Your task to perform on an android device: What's the weather today? Image 0: 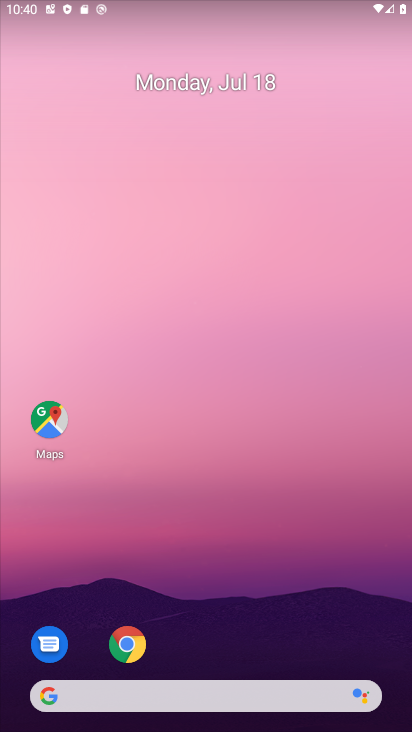
Step 0: drag from (210, 662) to (201, 136)
Your task to perform on an android device: What's the weather today? Image 1: 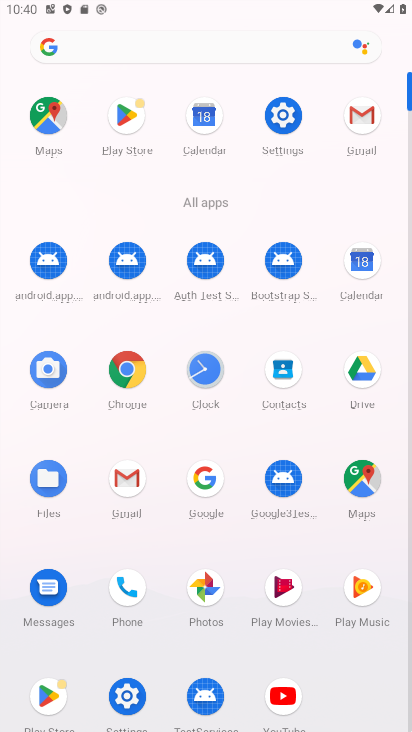
Step 1: click (204, 480)
Your task to perform on an android device: What's the weather today? Image 2: 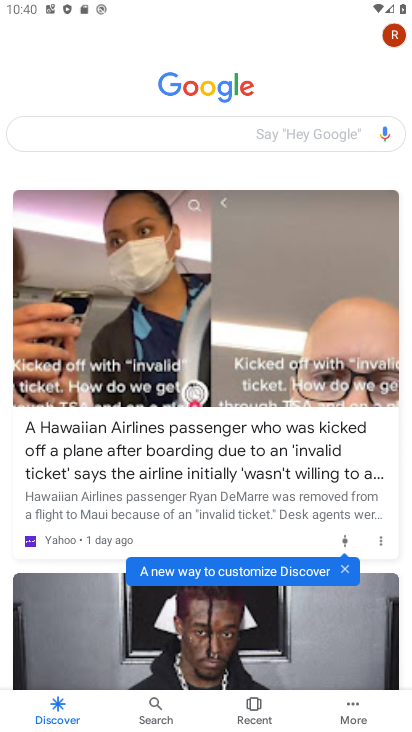
Step 2: click (175, 141)
Your task to perform on an android device: What's the weather today? Image 3: 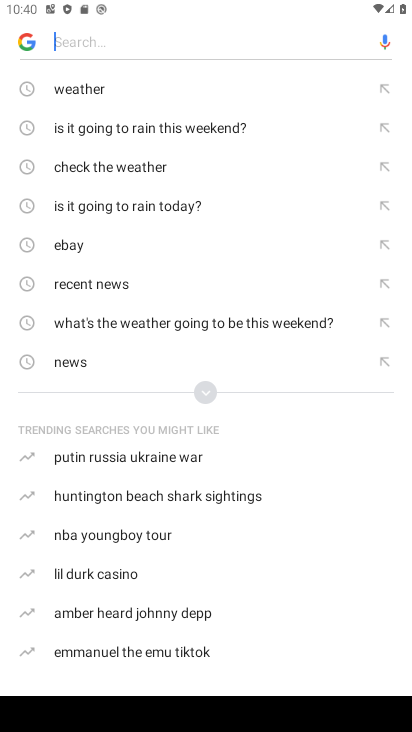
Step 3: type "weather today"
Your task to perform on an android device: What's the weather today? Image 4: 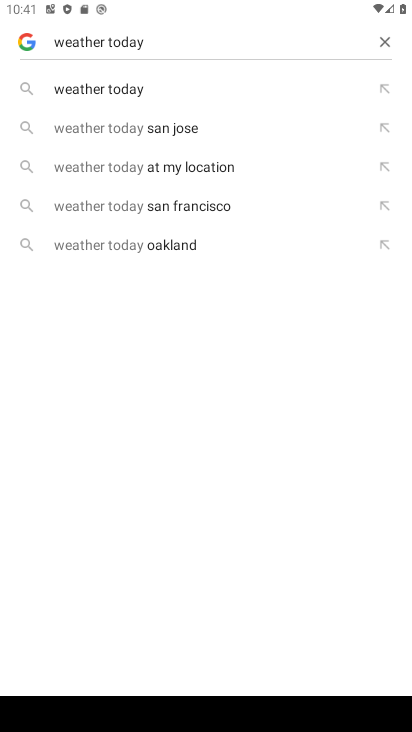
Step 4: click (156, 82)
Your task to perform on an android device: What's the weather today? Image 5: 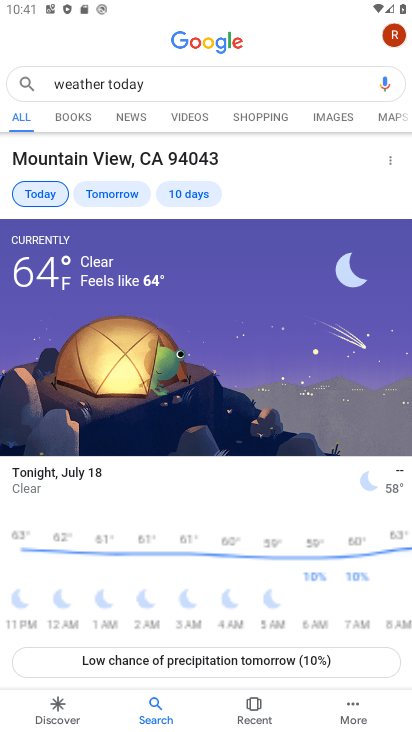
Step 5: task complete